Your task to perform on an android device: Open ESPN.com Image 0: 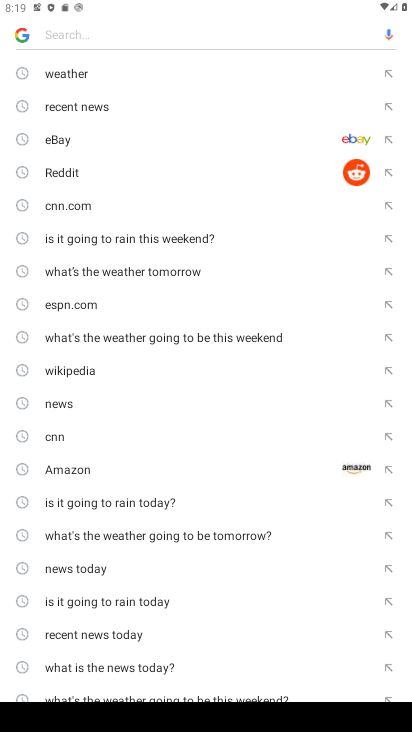
Step 0: press home button
Your task to perform on an android device: Open ESPN.com Image 1: 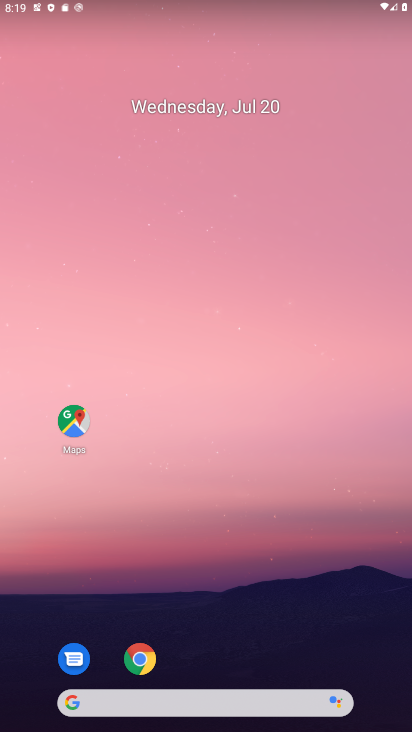
Step 1: drag from (292, 644) to (174, 24)
Your task to perform on an android device: Open ESPN.com Image 2: 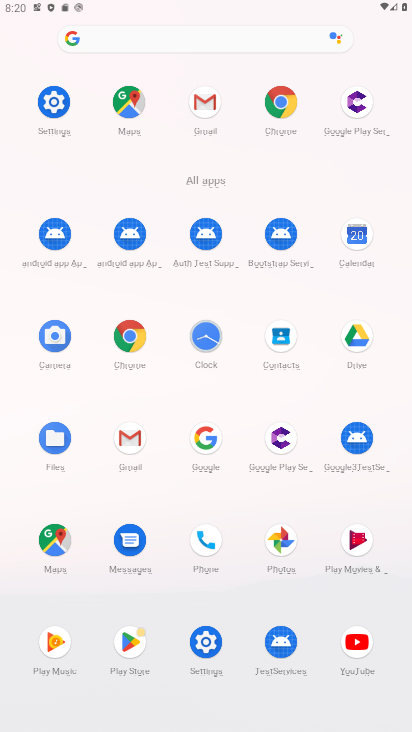
Step 2: click (120, 346)
Your task to perform on an android device: Open ESPN.com Image 3: 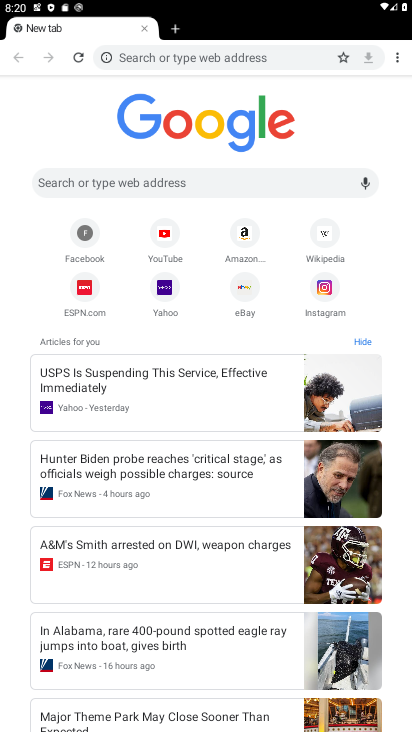
Step 3: click (192, 58)
Your task to perform on an android device: Open ESPN.com Image 4: 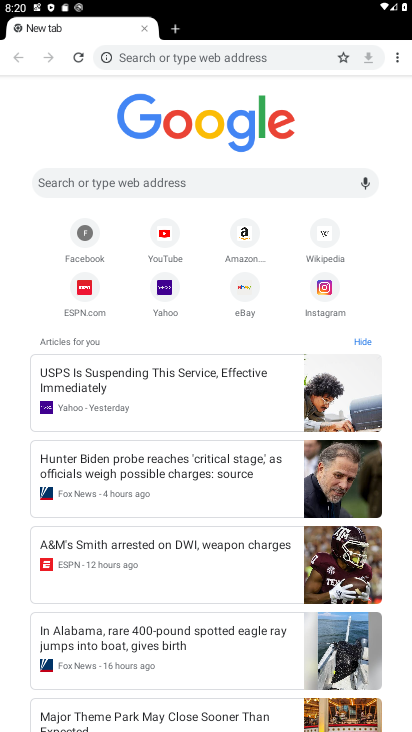
Step 4: type " ESPN.com"
Your task to perform on an android device: Open ESPN.com Image 5: 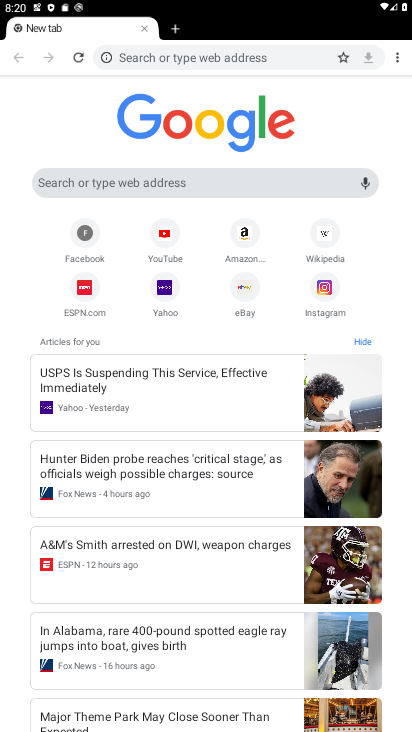
Step 5: click (155, 58)
Your task to perform on an android device: Open ESPN.com Image 6: 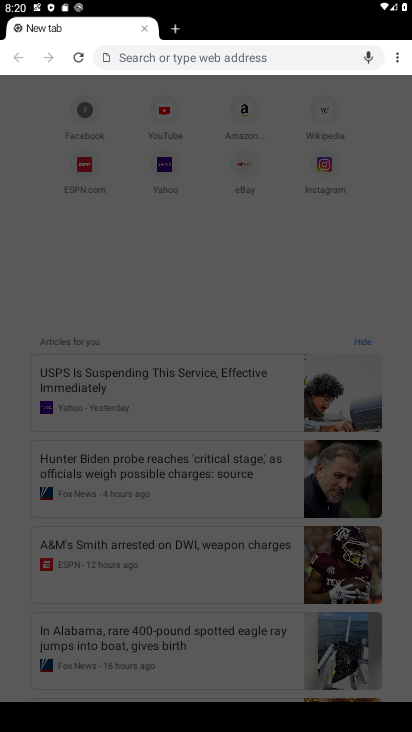
Step 6: type " ESPN.com"
Your task to perform on an android device: Open ESPN.com Image 7: 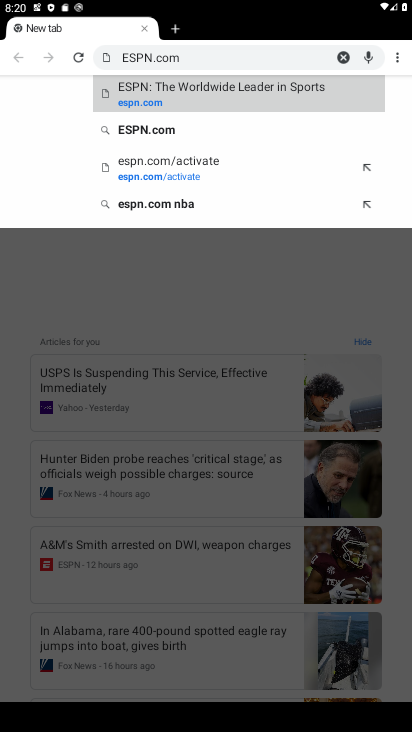
Step 7: click (145, 98)
Your task to perform on an android device: Open ESPN.com Image 8: 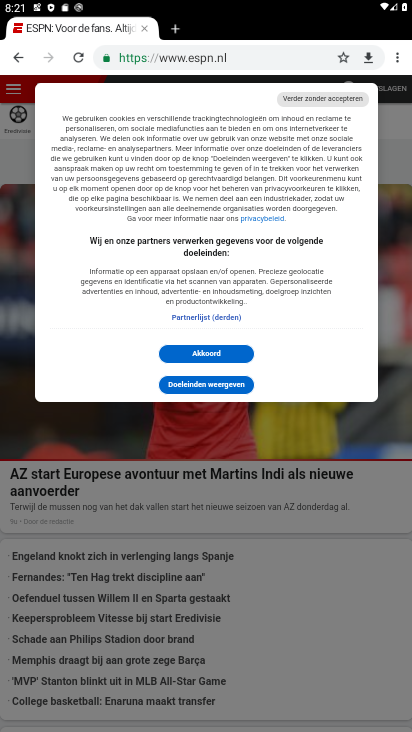
Step 8: click (210, 350)
Your task to perform on an android device: Open ESPN.com Image 9: 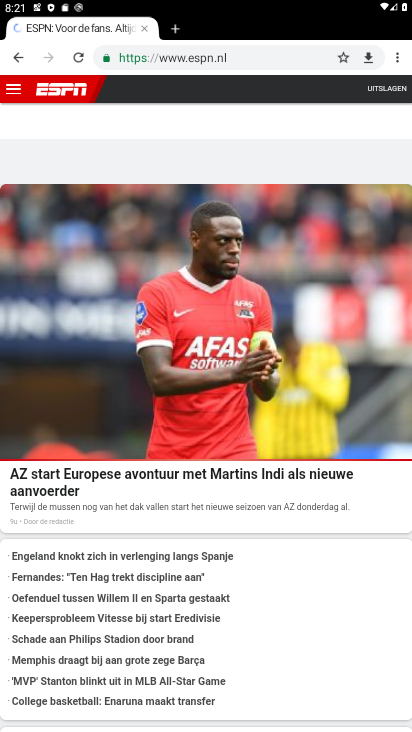
Step 9: task complete